Your task to perform on an android device: delete the emails in spam in the gmail app Image 0: 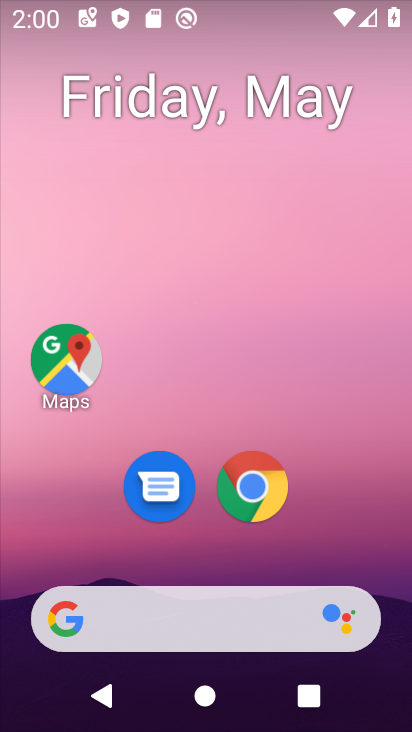
Step 0: drag from (396, 622) to (339, 177)
Your task to perform on an android device: delete the emails in spam in the gmail app Image 1: 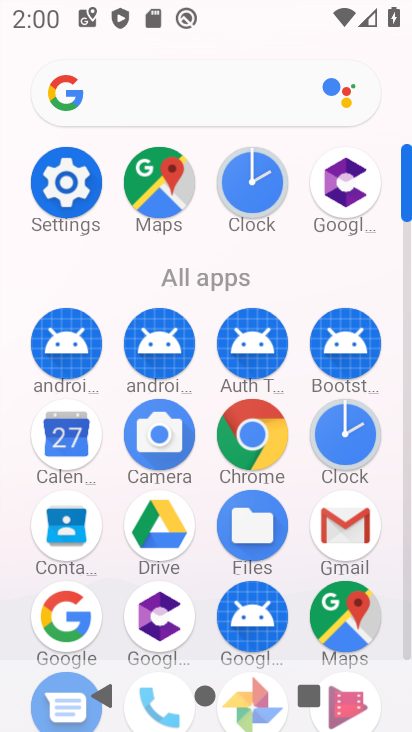
Step 1: click (335, 524)
Your task to perform on an android device: delete the emails in spam in the gmail app Image 2: 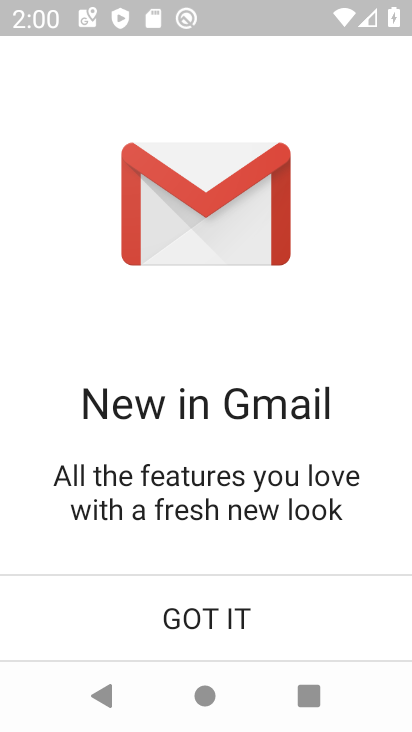
Step 2: click (174, 614)
Your task to perform on an android device: delete the emails in spam in the gmail app Image 3: 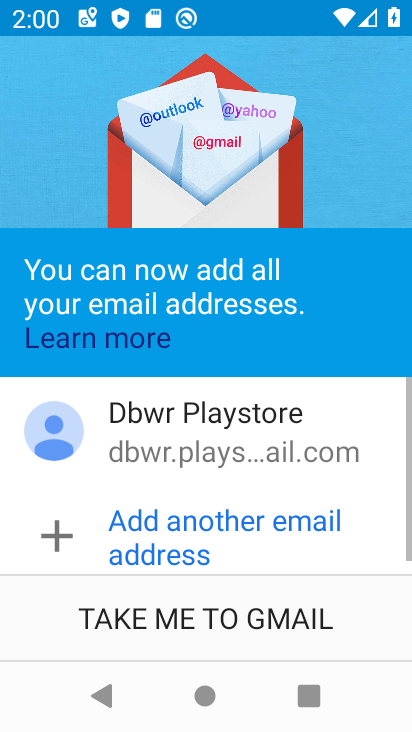
Step 3: click (174, 615)
Your task to perform on an android device: delete the emails in spam in the gmail app Image 4: 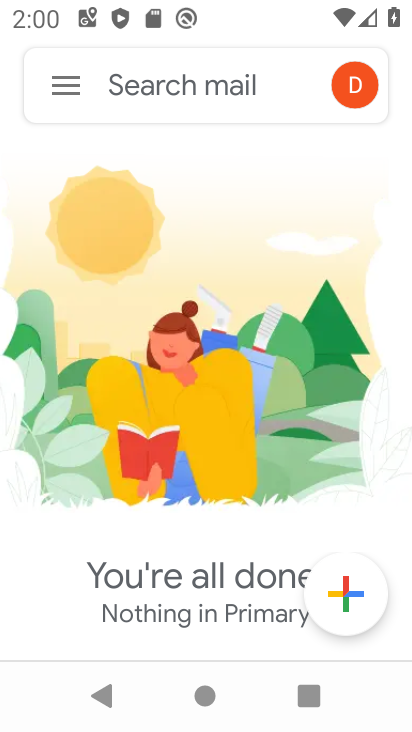
Step 4: click (62, 86)
Your task to perform on an android device: delete the emails in spam in the gmail app Image 5: 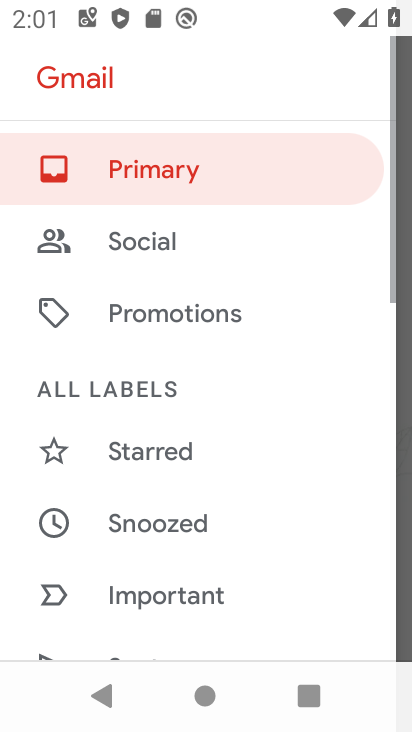
Step 5: click (120, 168)
Your task to perform on an android device: delete the emails in spam in the gmail app Image 6: 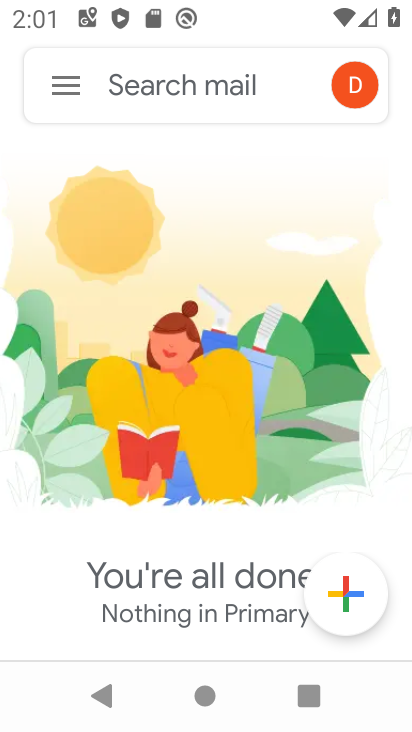
Step 6: task complete